Your task to perform on an android device: change the clock display to analog Image 0: 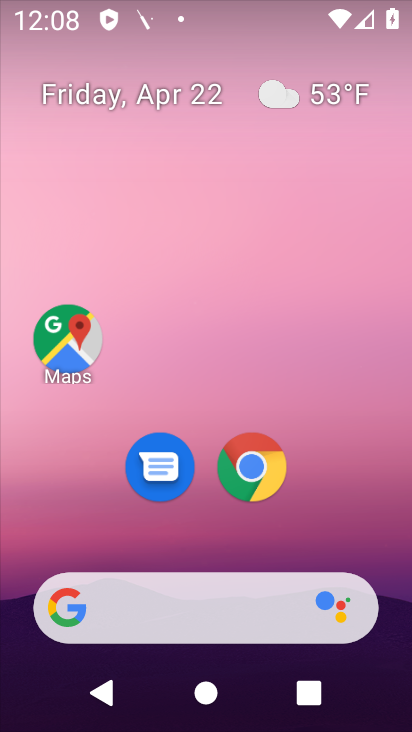
Step 0: drag from (393, 625) to (322, 143)
Your task to perform on an android device: change the clock display to analog Image 1: 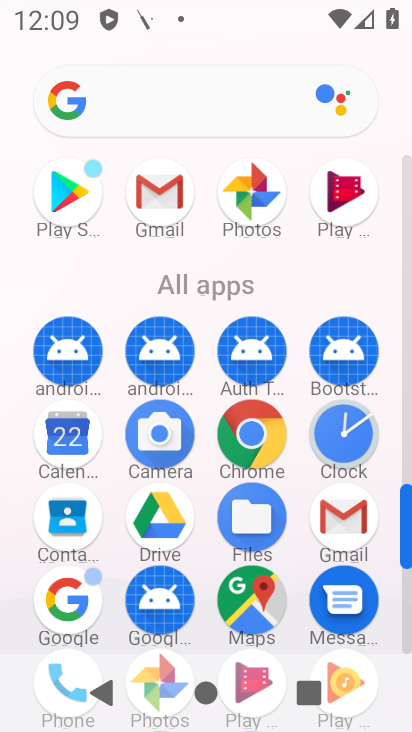
Step 1: click (406, 636)
Your task to perform on an android device: change the clock display to analog Image 2: 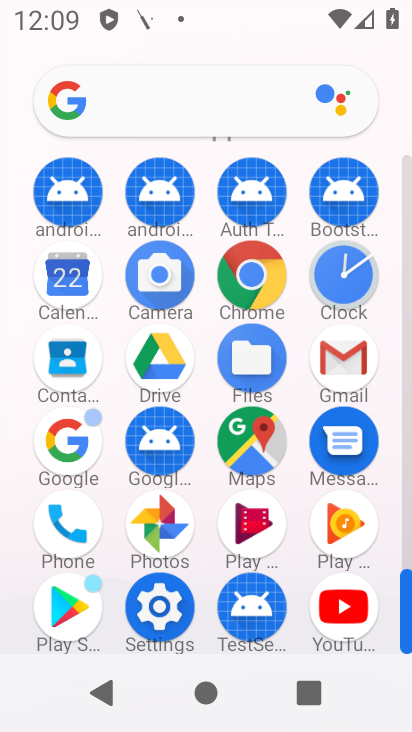
Step 2: click (341, 271)
Your task to perform on an android device: change the clock display to analog Image 3: 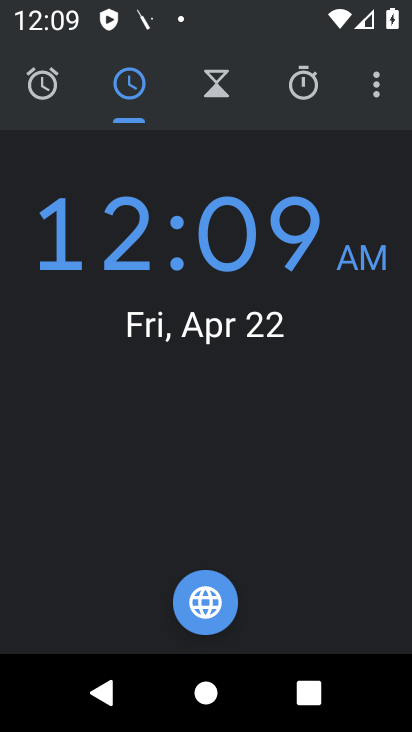
Step 3: click (377, 90)
Your task to perform on an android device: change the clock display to analog Image 4: 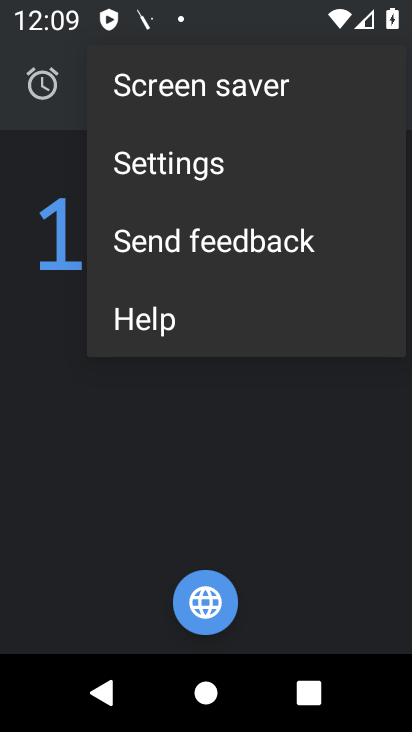
Step 4: click (170, 167)
Your task to perform on an android device: change the clock display to analog Image 5: 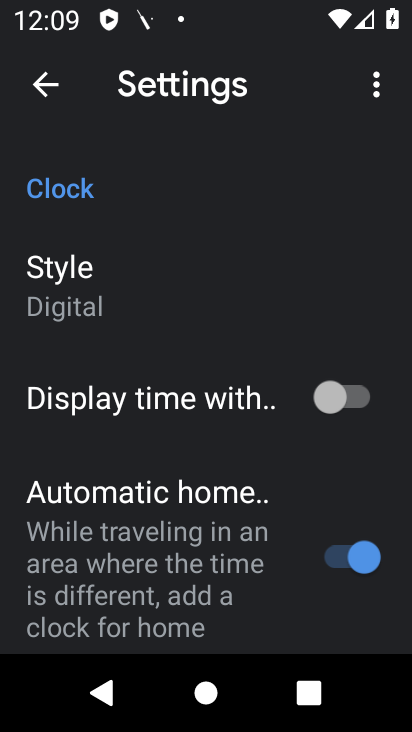
Step 5: click (68, 297)
Your task to perform on an android device: change the clock display to analog Image 6: 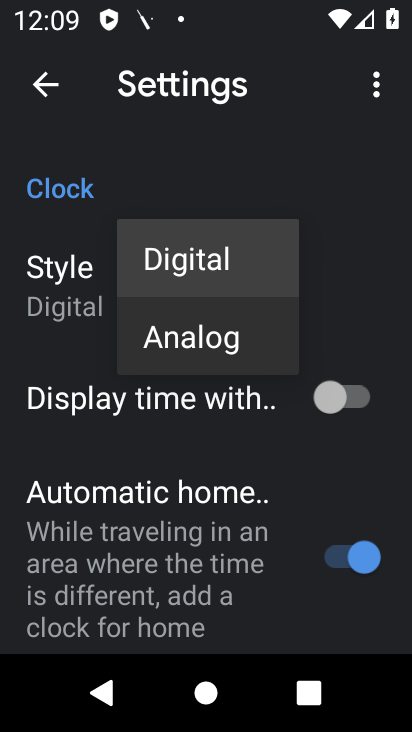
Step 6: click (177, 336)
Your task to perform on an android device: change the clock display to analog Image 7: 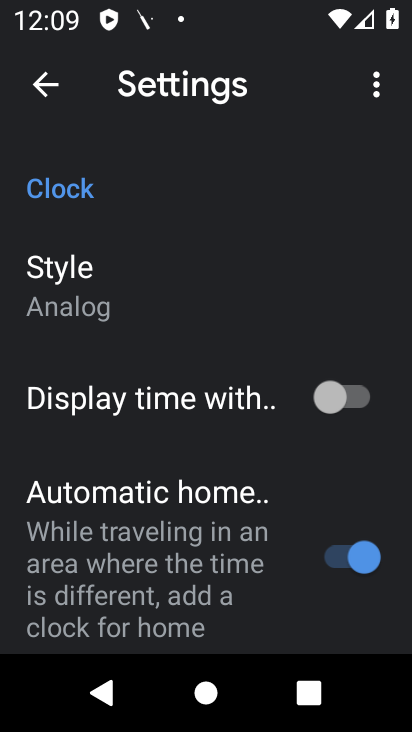
Step 7: task complete